Your task to perform on an android device: Go to battery settings Image 0: 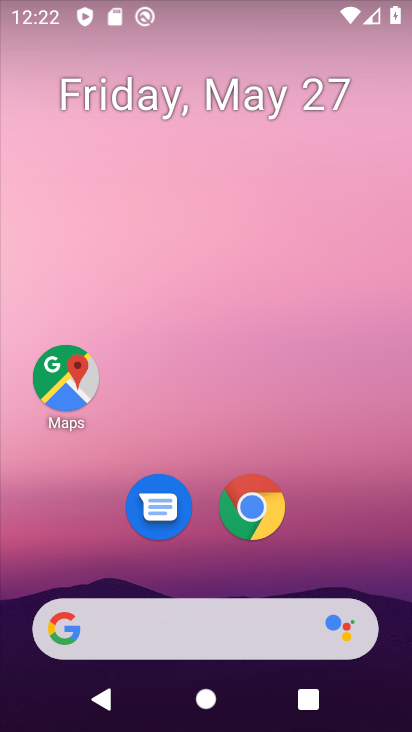
Step 0: drag from (152, 594) to (272, 111)
Your task to perform on an android device: Go to battery settings Image 1: 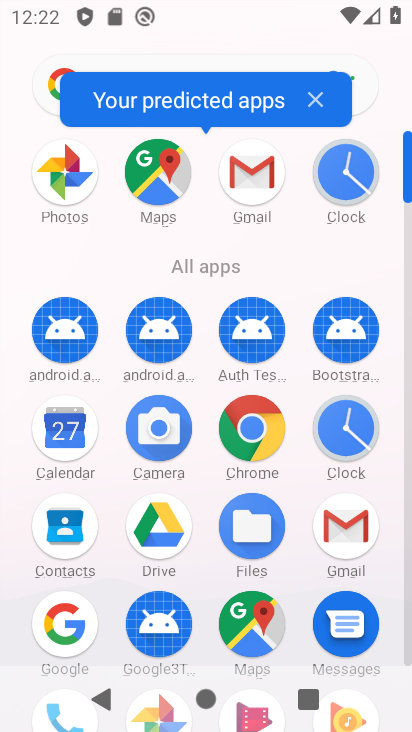
Step 1: drag from (173, 547) to (242, 253)
Your task to perform on an android device: Go to battery settings Image 2: 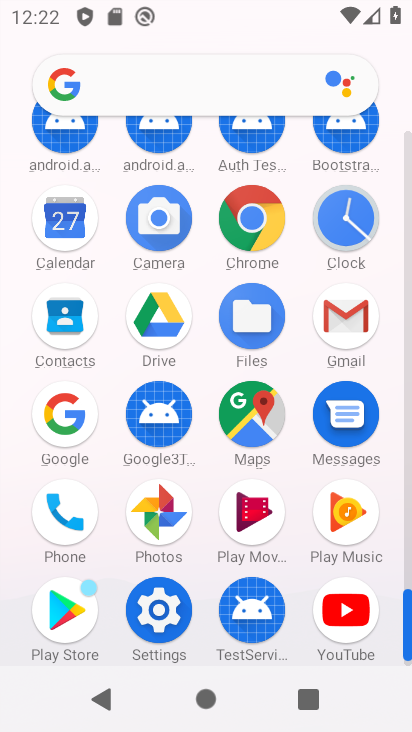
Step 2: click (159, 640)
Your task to perform on an android device: Go to battery settings Image 3: 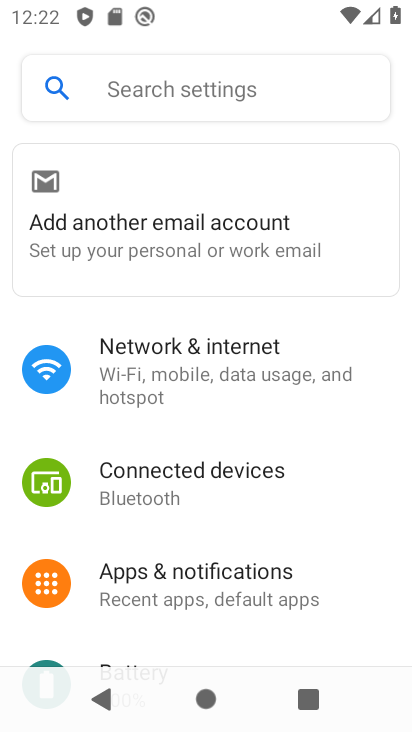
Step 3: drag from (154, 563) to (229, 213)
Your task to perform on an android device: Go to battery settings Image 4: 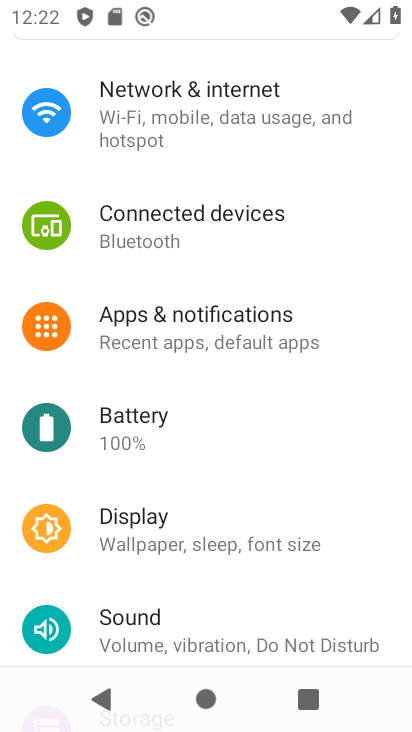
Step 4: click (207, 413)
Your task to perform on an android device: Go to battery settings Image 5: 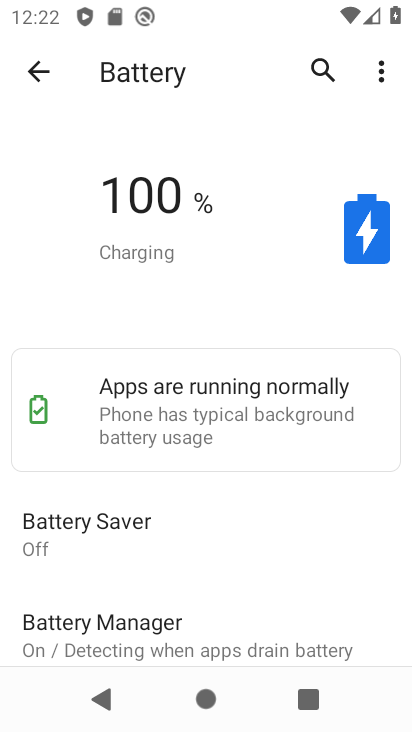
Step 5: task complete